Your task to perform on an android device: Open CNN.com Image 0: 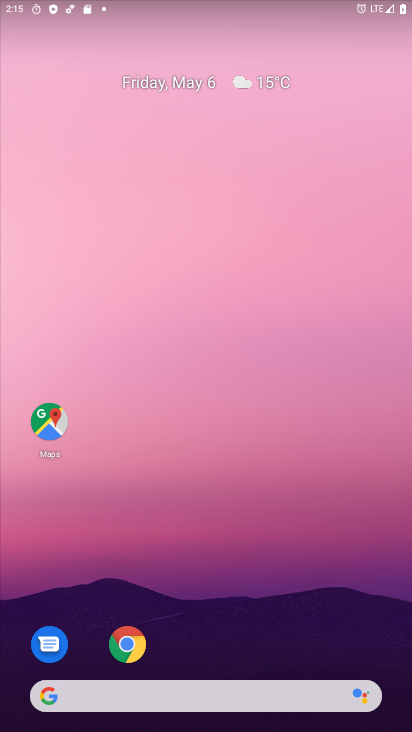
Step 0: click (231, 220)
Your task to perform on an android device: Open CNN.com Image 1: 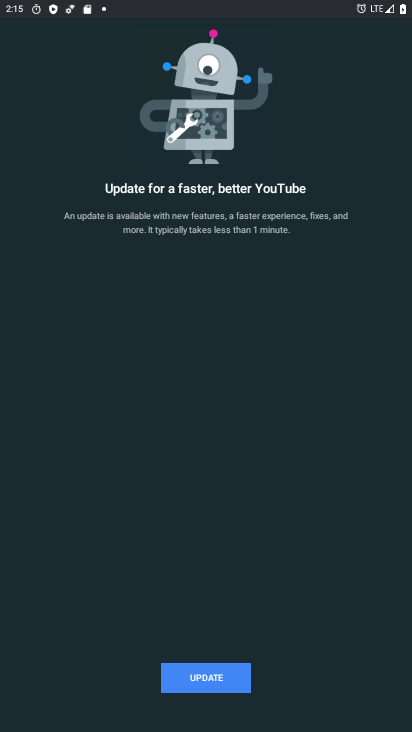
Step 1: press home button
Your task to perform on an android device: Open CNN.com Image 2: 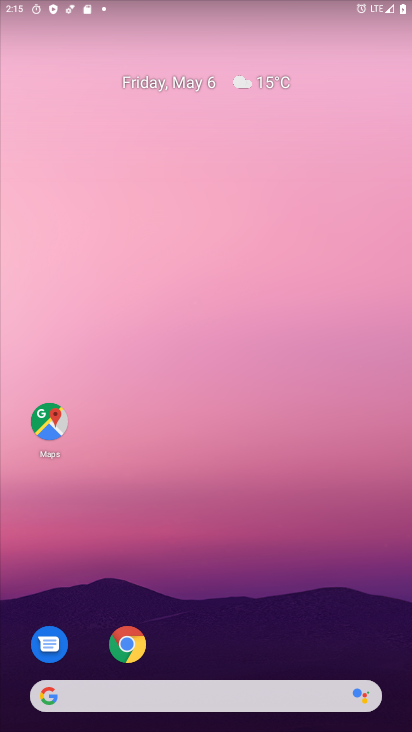
Step 2: click (126, 660)
Your task to perform on an android device: Open CNN.com Image 3: 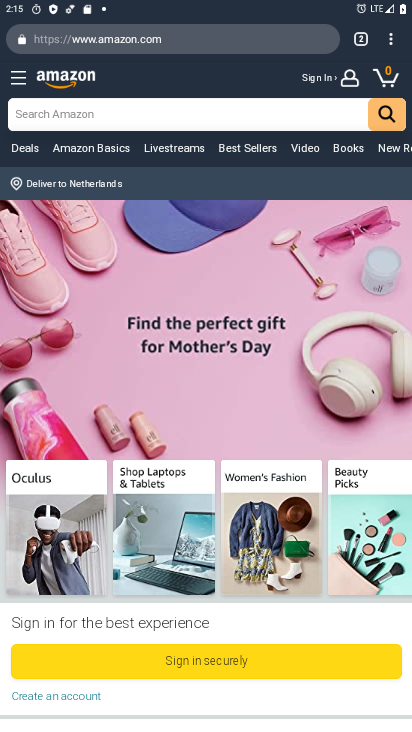
Step 3: click (186, 43)
Your task to perform on an android device: Open CNN.com Image 4: 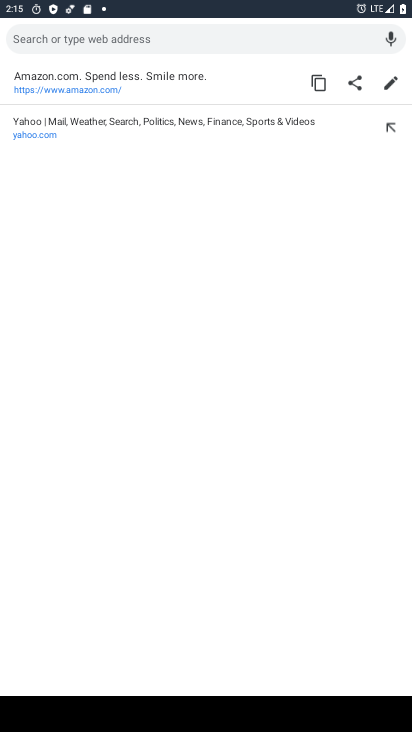
Step 4: type "CNN.com"
Your task to perform on an android device: Open CNN.com Image 5: 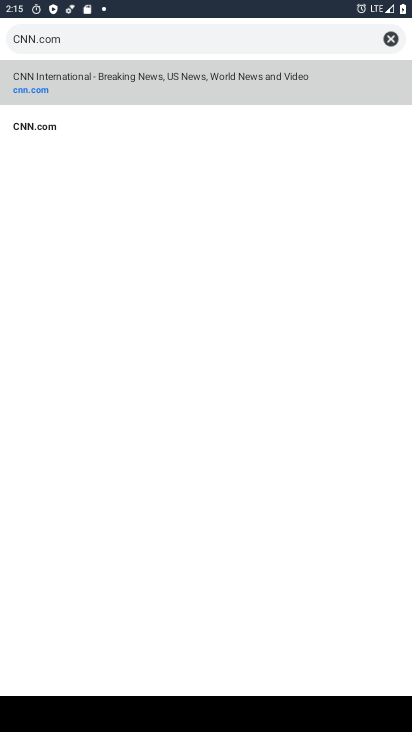
Step 5: click (32, 86)
Your task to perform on an android device: Open CNN.com Image 6: 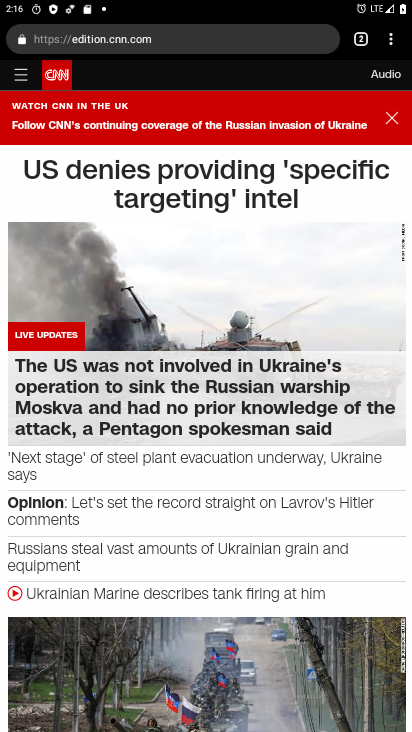
Step 6: task complete